Your task to perform on an android device: Show me the alarms in the clock app Image 0: 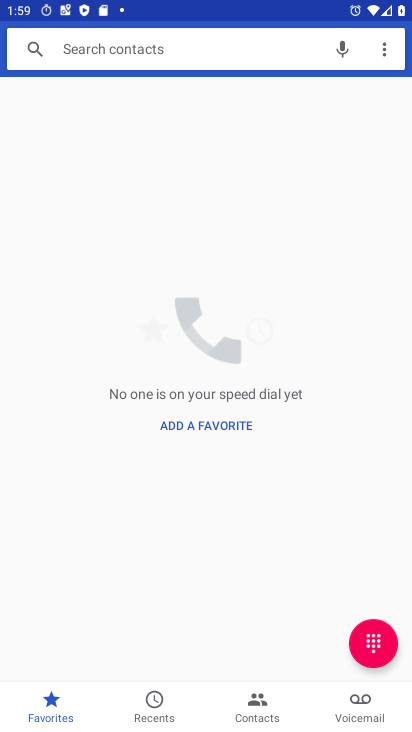
Step 0: press home button
Your task to perform on an android device: Show me the alarms in the clock app Image 1: 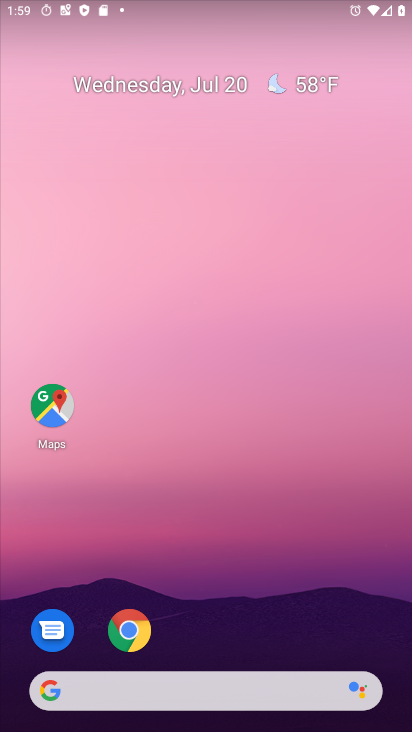
Step 1: drag from (121, 692) to (321, 165)
Your task to perform on an android device: Show me the alarms in the clock app Image 2: 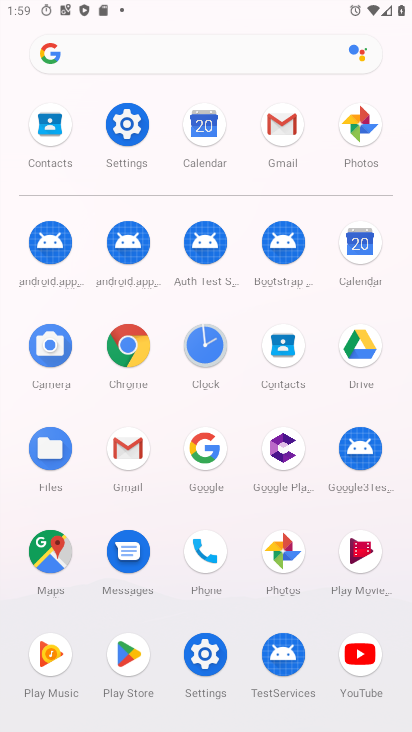
Step 2: click (210, 341)
Your task to perform on an android device: Show me the alarms in the clock app Image 3: 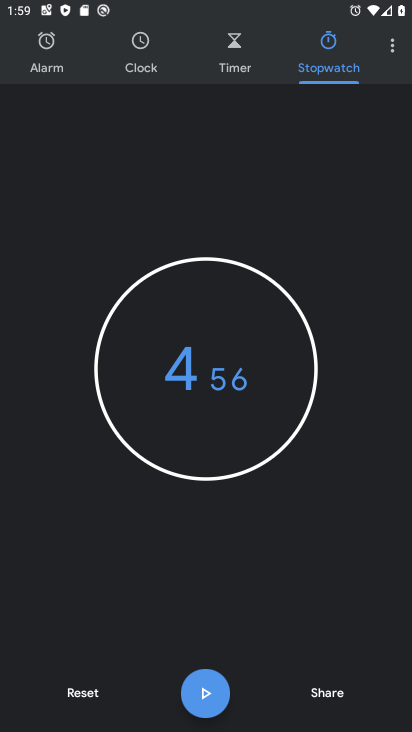
Step 3: click (36, 61)
Your task to perform on an android device: Show me the alarms in the clock app Image 4: 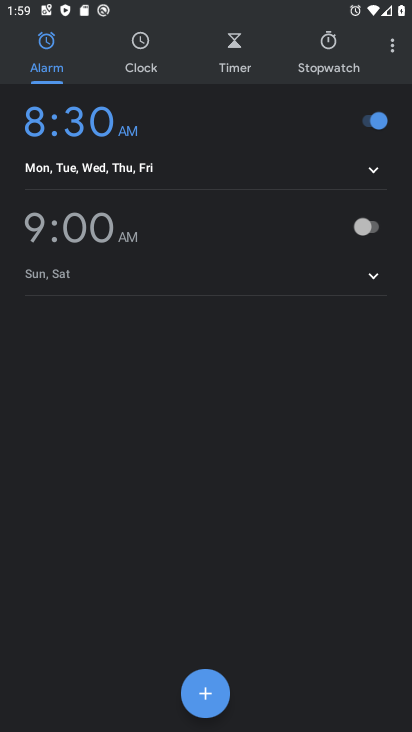
Step 4: task complete